Your task to perform on an android device: Go to Reddit.com Image 0: 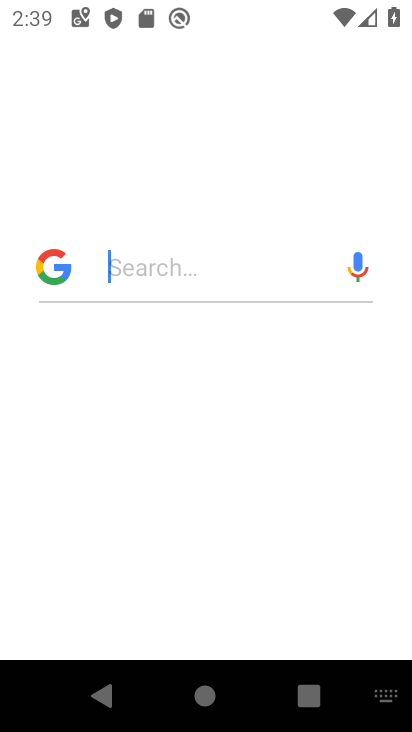
Step 0: drag from (187, 542) to (221, 138)
Your task to perform on an android device: Go to Reddit.com Image 1: 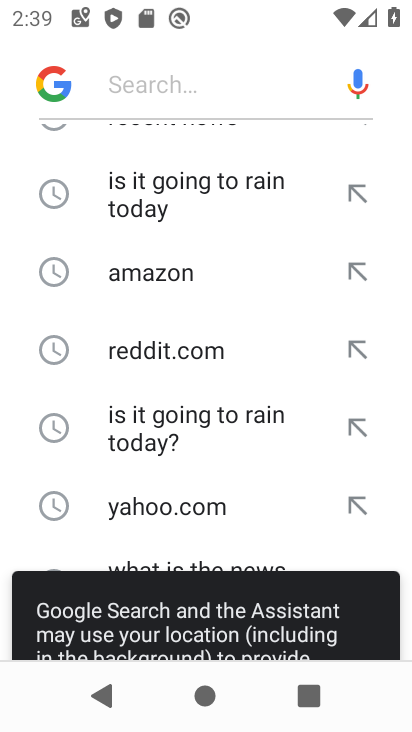
Step 1: press home button
Your task to perform on an android device: Go to Reddit.com Image 2: 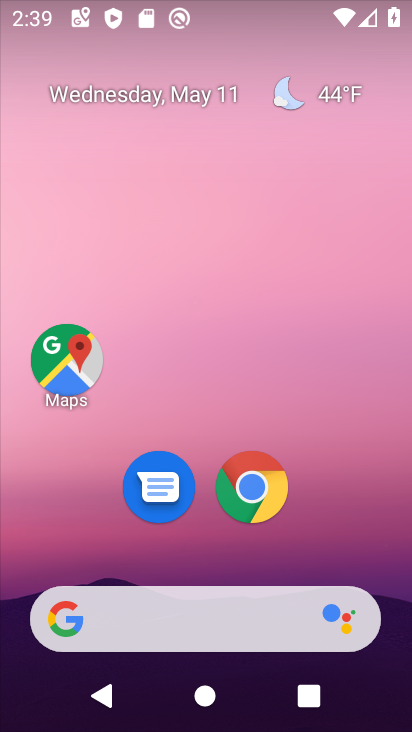
Step 2: click (253, 486)
Your task to perform on an android device: Go to Reddit.com Image 3: 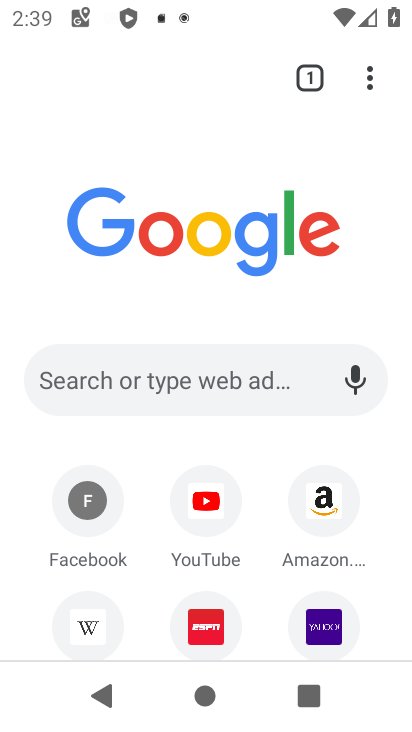
Step 3: click (143, 369)
Your task to perform on an android device: Go to Reddit.com Image 4: 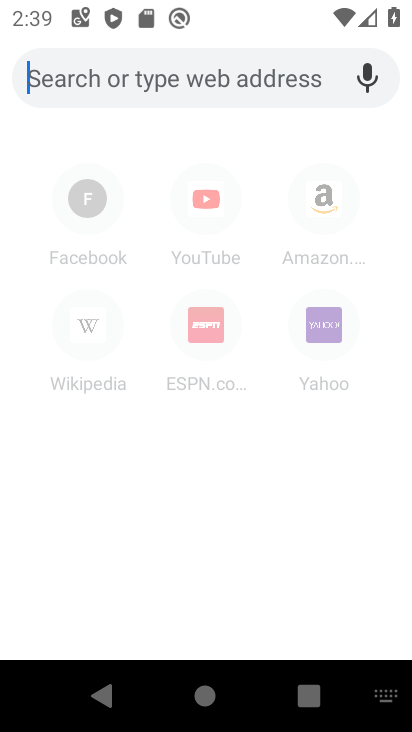
Step 4: click (90, 76)
Your task to perform on an android device: Go to Reddit.com Image 5: 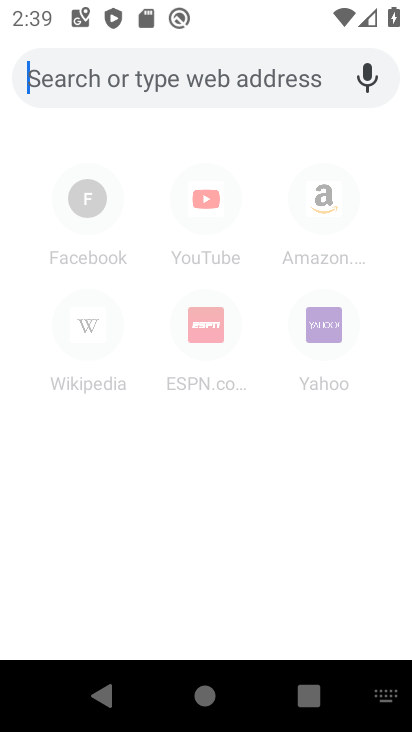
Step 5: type "reddit.com"
Your task to perform on an android device: Go to Reddit.com Image 6: 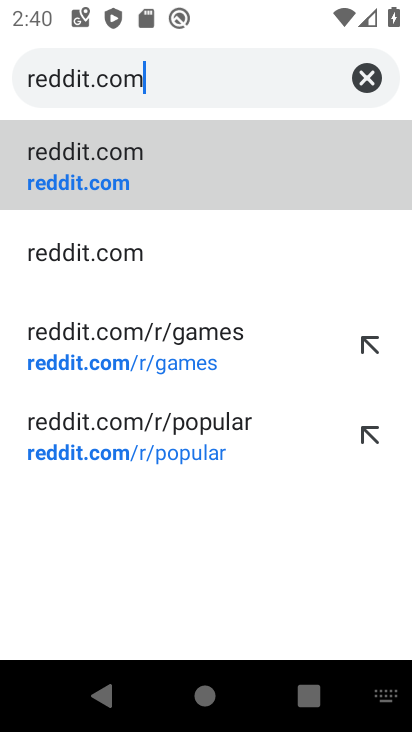
Step 6: click (167, 169)
Your task to perform on an android device: Go to Reddit.com Image 7: 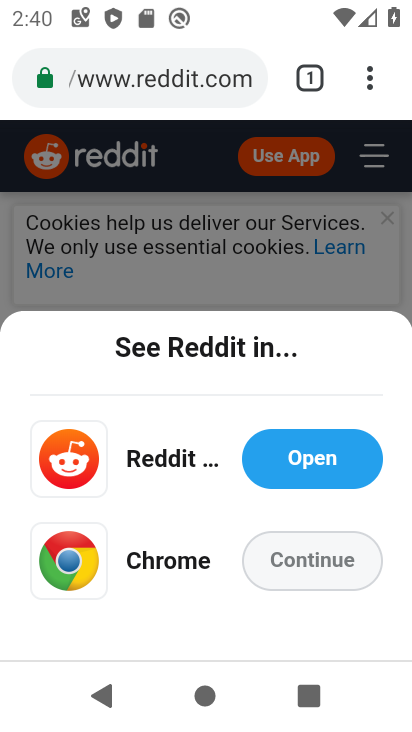
Step 7: task complete